Your task to perform on an android device: Turn on the flashlight Image 0: 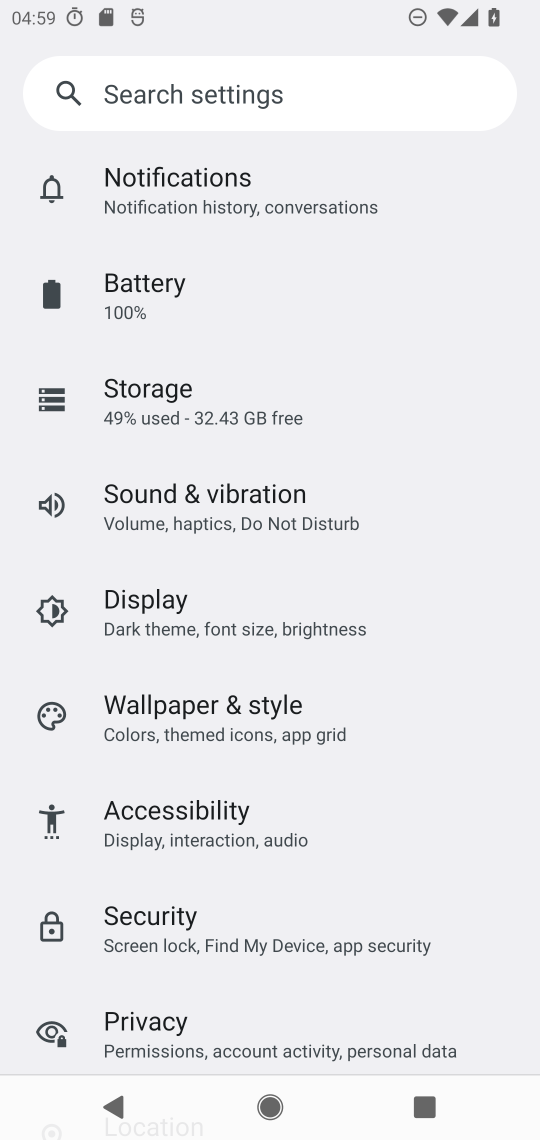
Step 0: press home button
Your task to perform on an android device: Turn on the flashlight Image 1: 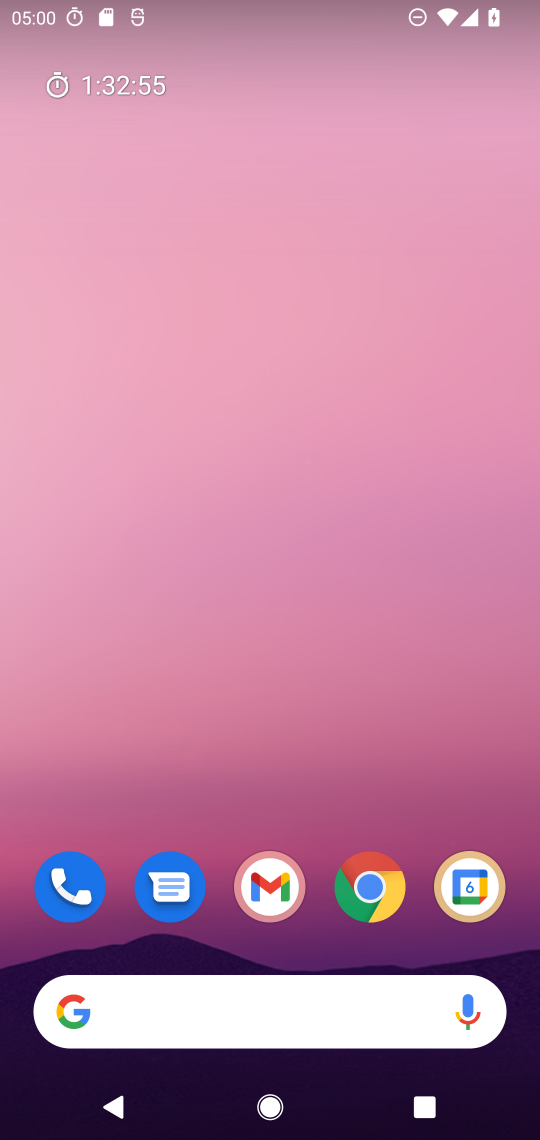
Step 1: task complete